Your task to perform on an android device: open app "McDonald's" (install if not already installed) and enter user name: "copes@yahoo.com" and password: "Rhenish" Image 0: 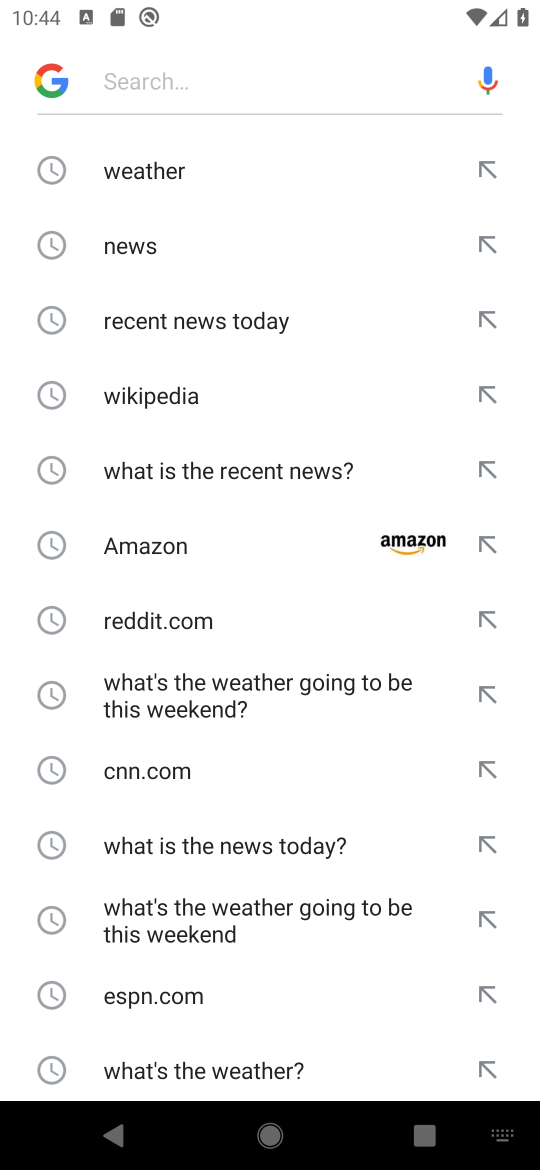
Step 0: press home button
Your task to perform on an android device: open app "McDonald's" (install if not already installed) and enter user name: "copes@yahoo.com" and password: "Rhenish" Image 1: 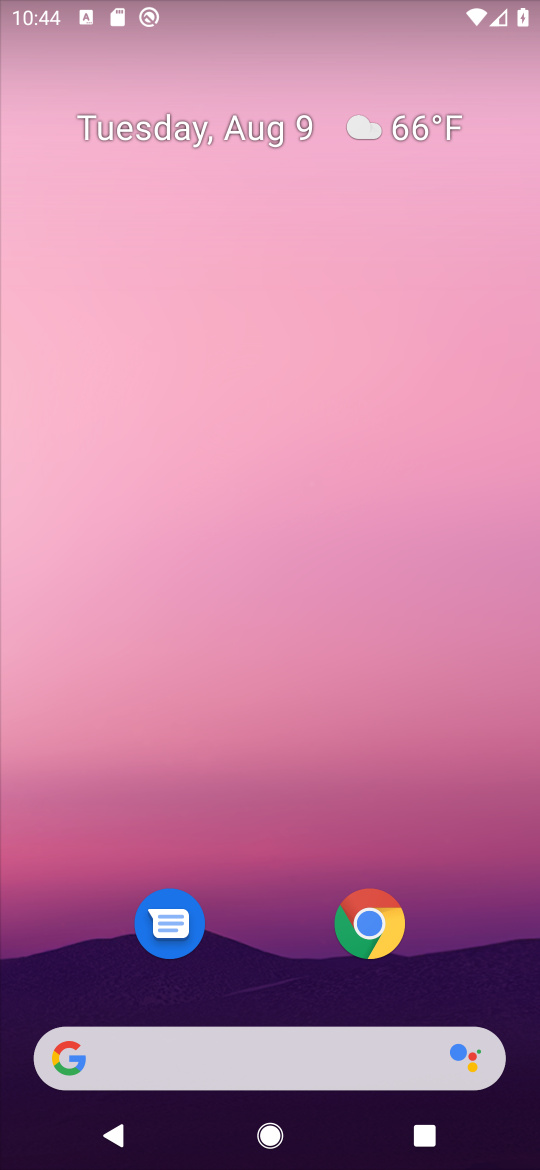
Step 1: drag from (284, 997) to (307, 52)
Your task to perform on an android device: open app "McDonald's" (install if not already installed) and enter user name: "copes@yahoo.com" and password: "Rhenish" Image 2: 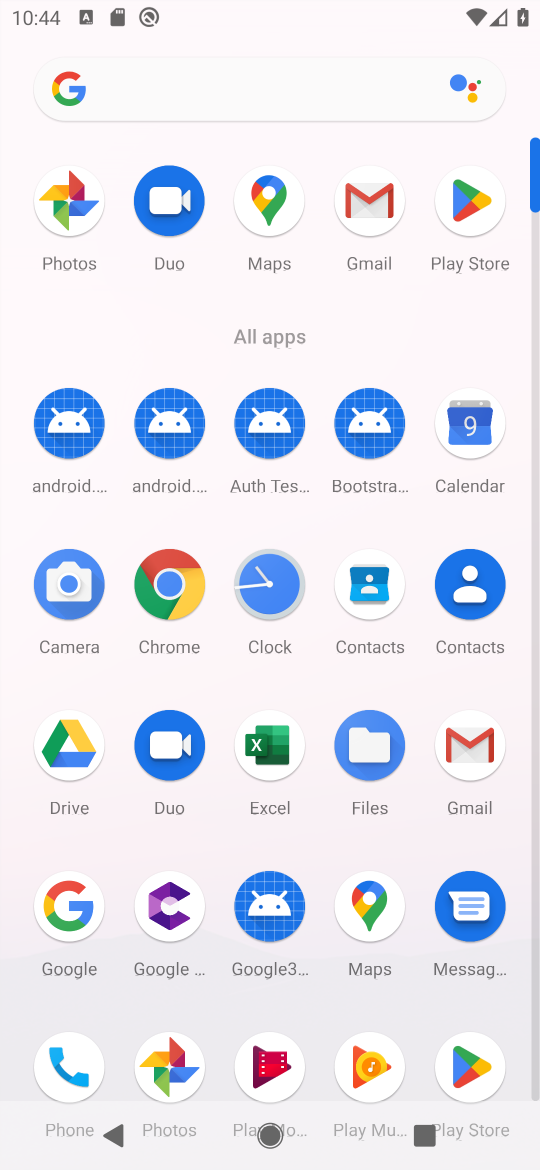
Step 2: click (463, 1067)
Your task to perform on an android device: open app "McDonald's" (install if not already installed) and enter user name: "copes@yahoo.com" and password: "Rhenish" Image 3: 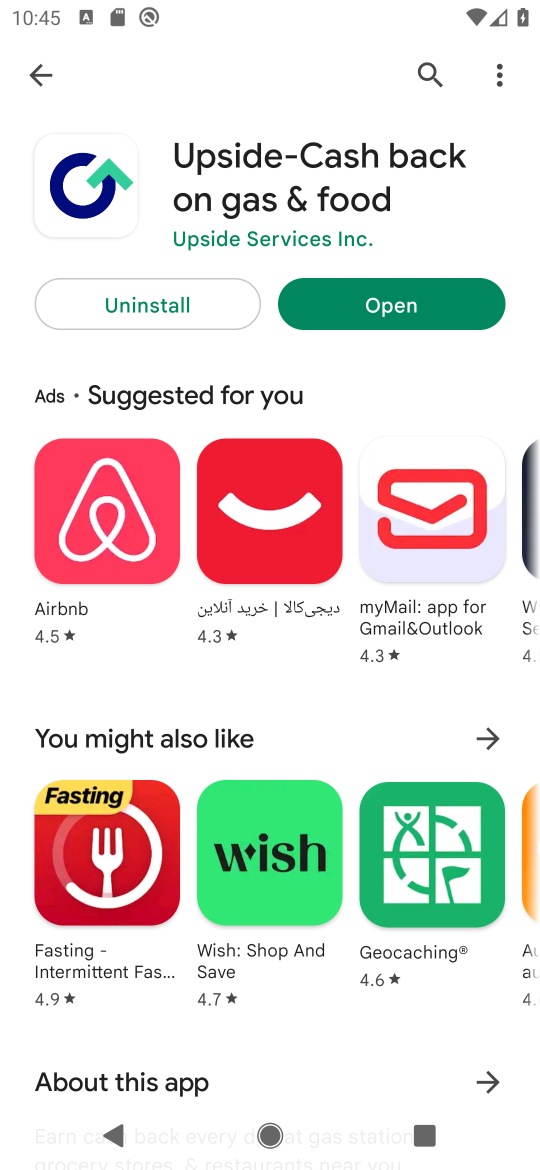
Step 3: click (394, 303)
Your task to perform on an android device: open app "McDonald's" (install if not already installed) and enter user name: "copes@yahoo.com" and password: "Rhenish" Image 4: 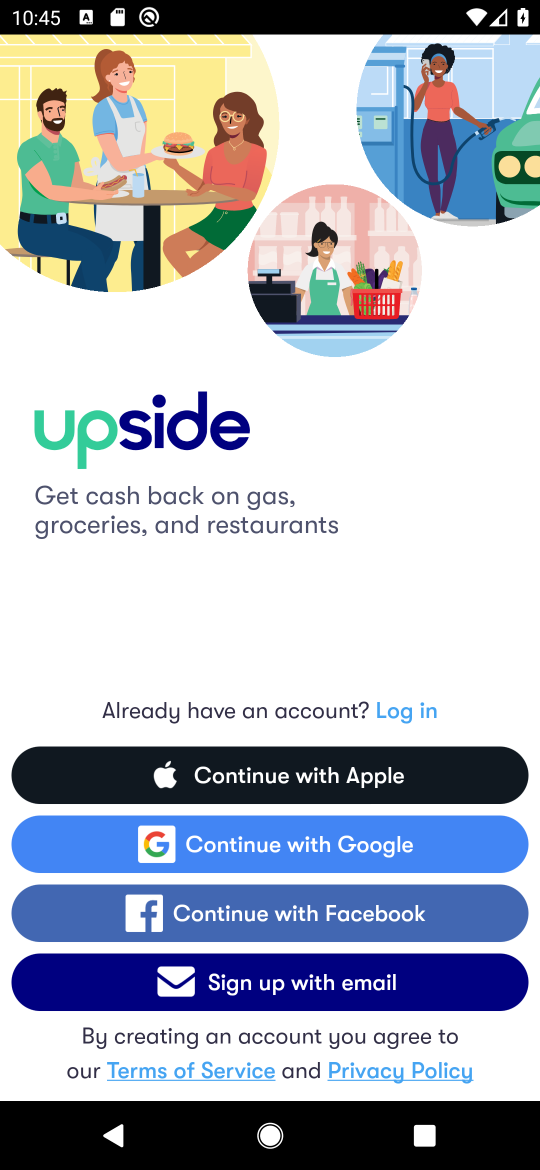
Step 4: press back button
Your task to perform on an android device: open app "McDonald's" (install if not already installed) and enter user name: "copes@yahoo.com" and password: "Rhenish" Image 5: 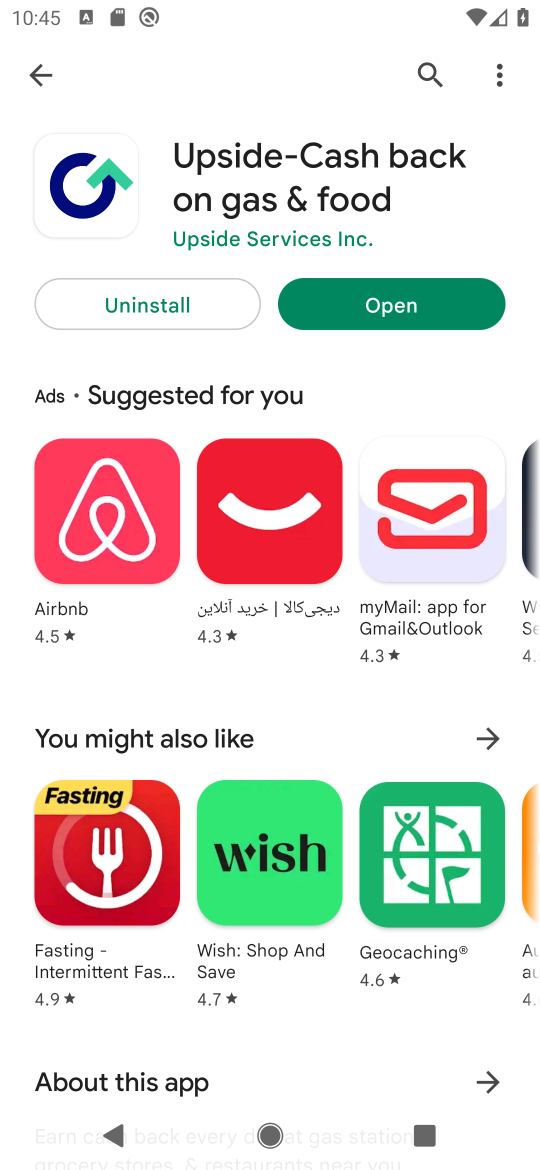
Step 5: click (417, 66)
Your task to perform on an android device: open app "McDonald's" (install if not already installed) and enter user name: "copes@yahoo.com" and password: "Rhenish" Image 6: 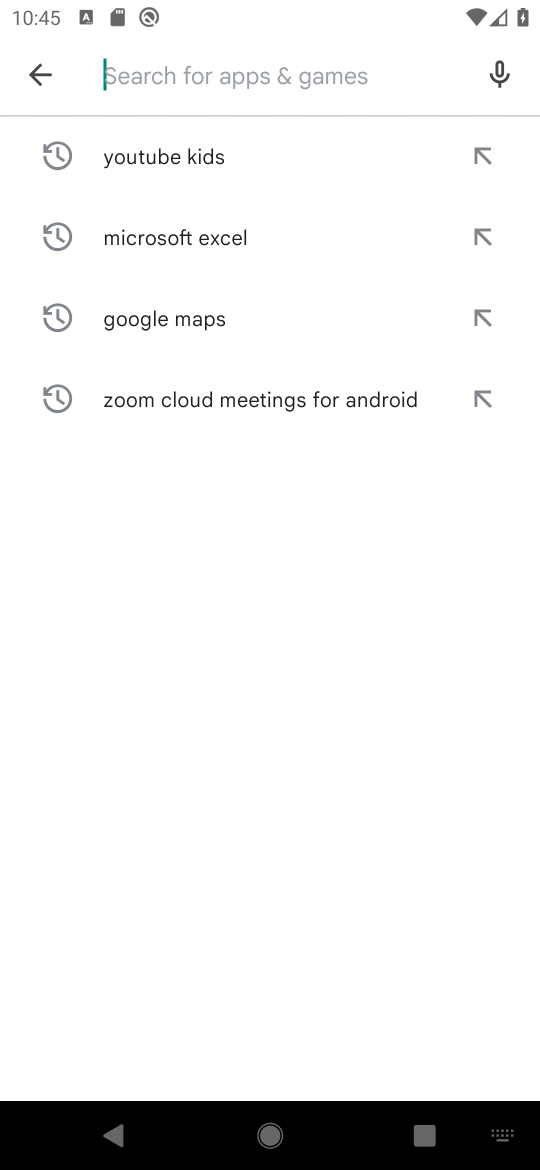
Step 6: click (153, 68)
Your task to perform on an android device: open app "McDonald's" (install if not already installed) and enter user name: "copes@yahoo.com" and password: "Rhenish" Image 7: 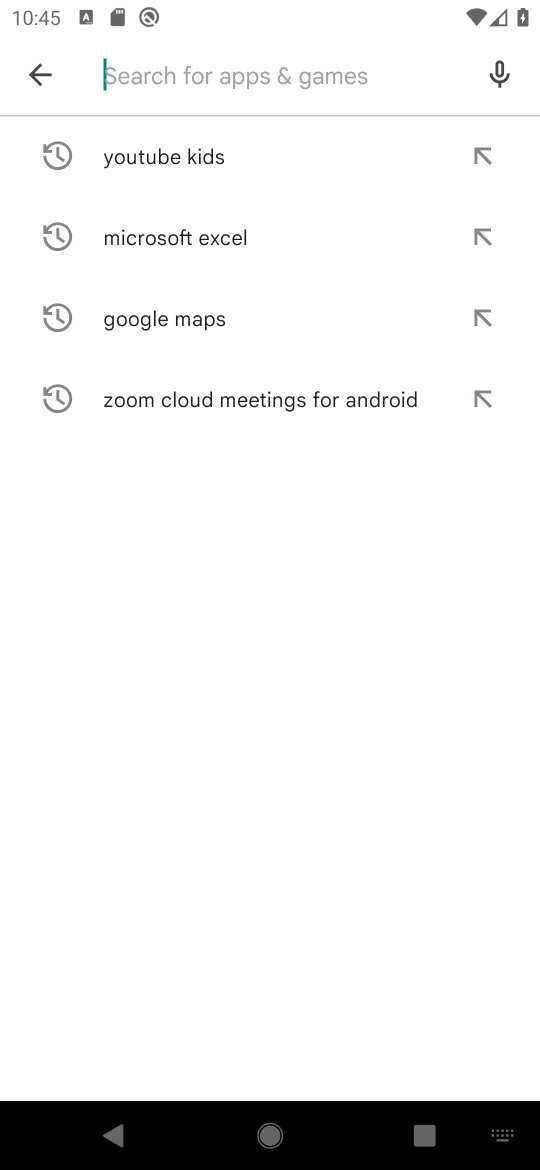
Step 7: type "McDonald's"
Your task to perform on an android device: open app "McDonald's" (install if not already installed) and enter user name: "copes@yahoo.com" and password: "Rhenish" Image 8: 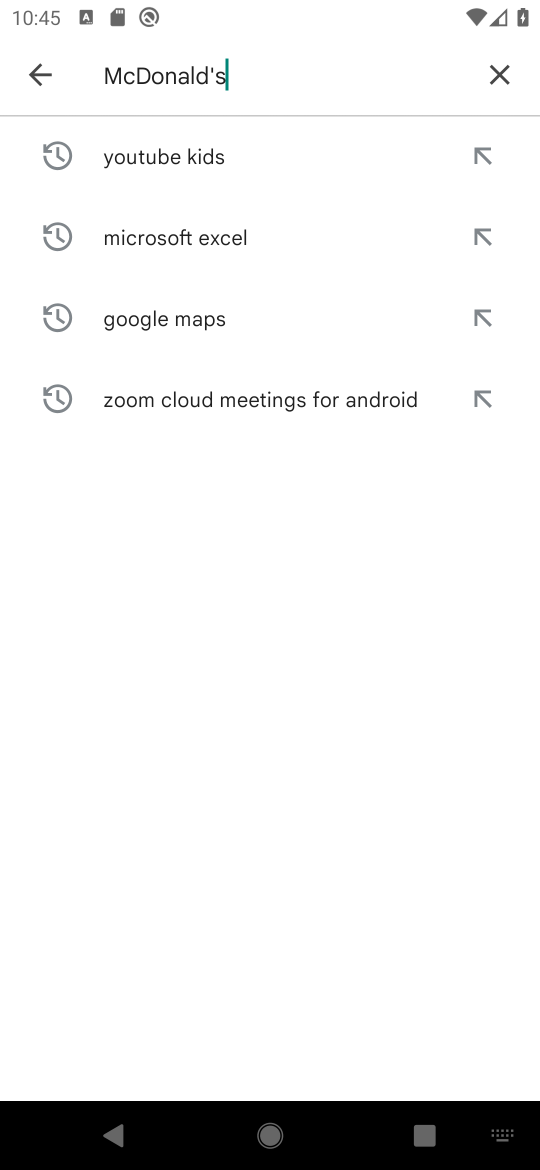
Step 8: type ""
Your task to perform on an android device: open app "McDonald's" (install if not already installed) and enter user name: "copes@yahoo.com" and password: "Rhenish" Image 9: 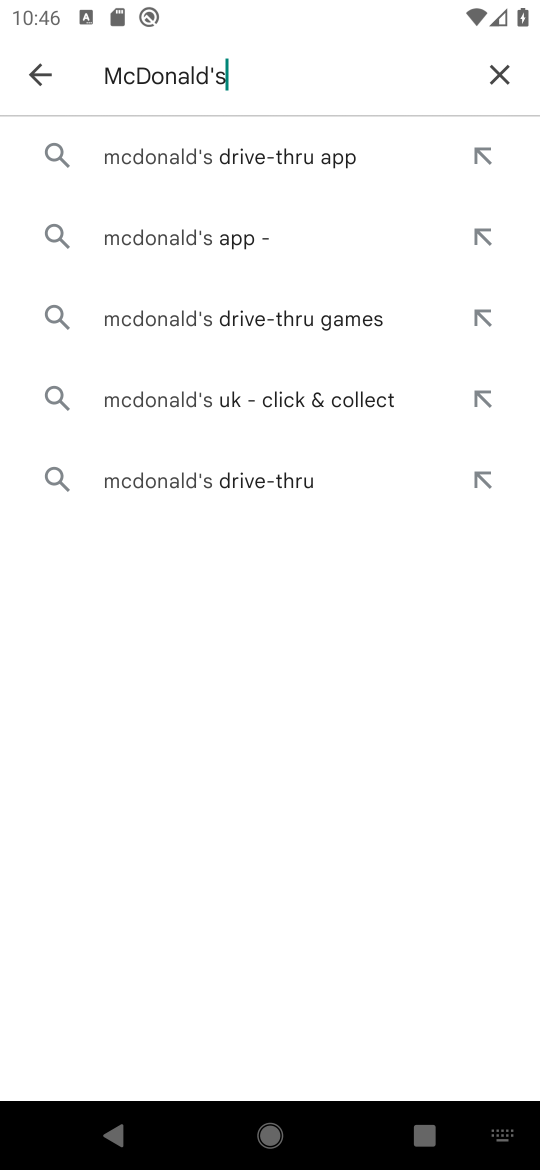
Step 9: click (217, 243)
Your task to perform on an android device: open app "McDonald's" (install if not already installed) and enter user name: "copes@yahoo.com" and password: "Rhenish" Image 10: 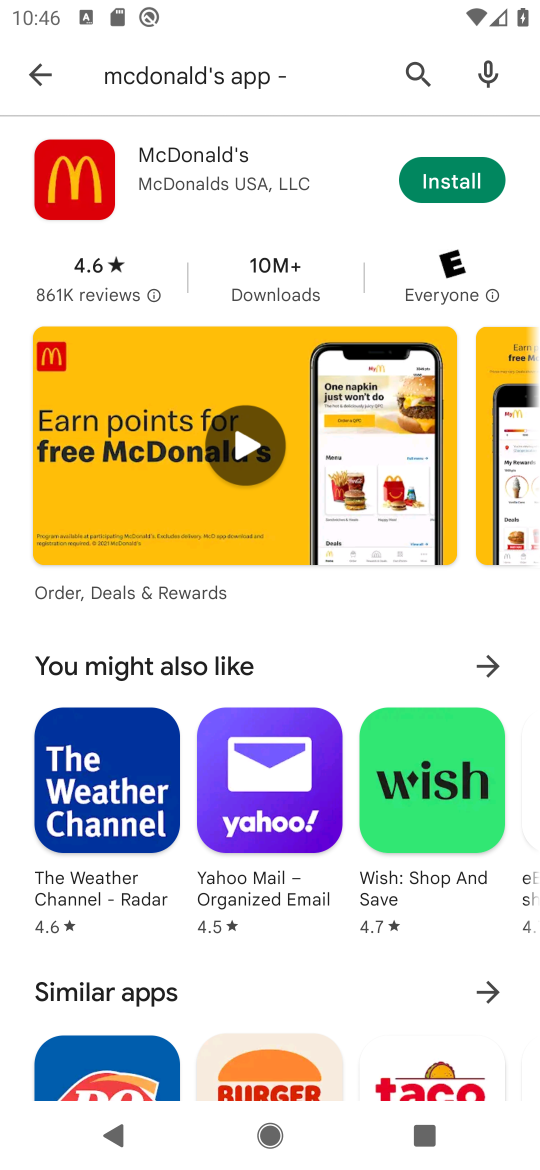
Step 10: click (454, 172)
Your task to perform on an android device: open app "McDonald's" (install if not already installed) and enter user name: "copes@yahoo.com" and password: "Rhenish" Image 11: 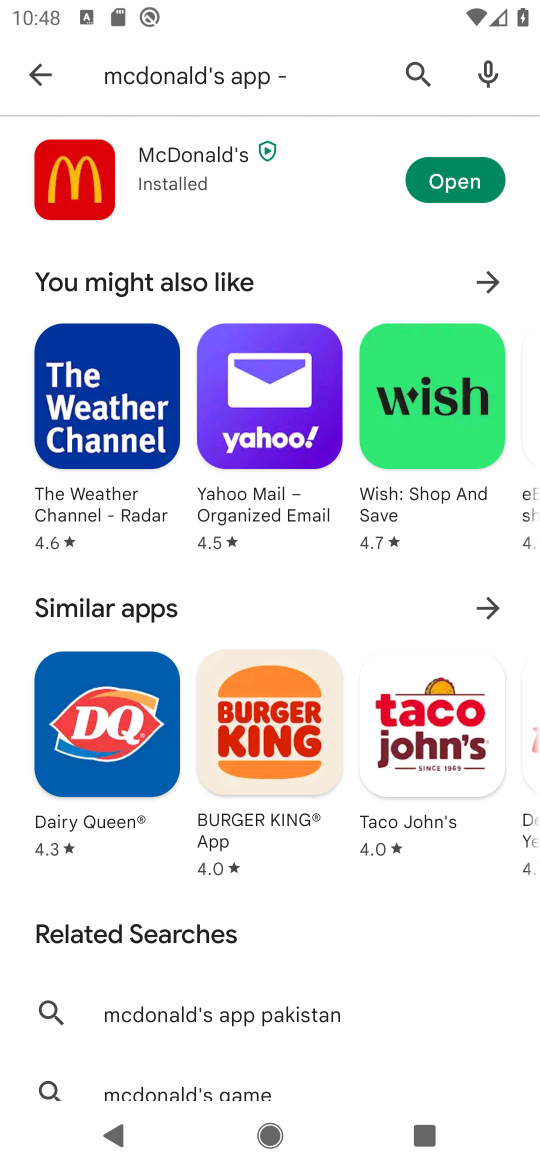
Step 11: click (454, 176)
Your task to perform on an android device: open app "McDonald's" (install if not already installed) and enter user name: "copes@yahoo.com" and password: "Rhenish" Image 12: 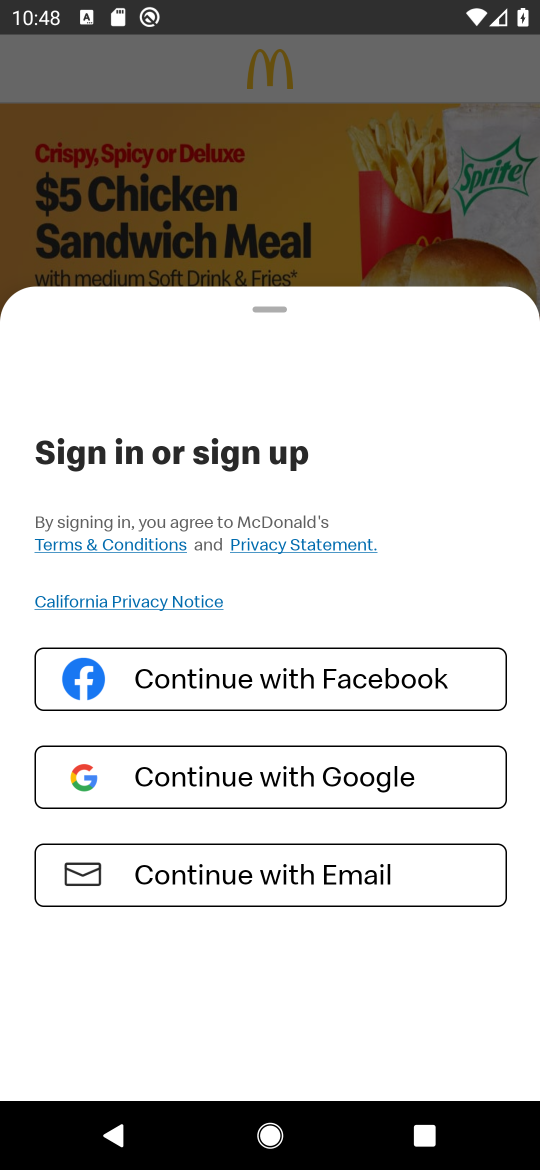
Step 12: click (116, 890)
Your task to perform on an android device: open app "McDonald's" (install if not already installed) and enter user name: "copes@yahoo.com" and password: "Rhenish" Image 13: 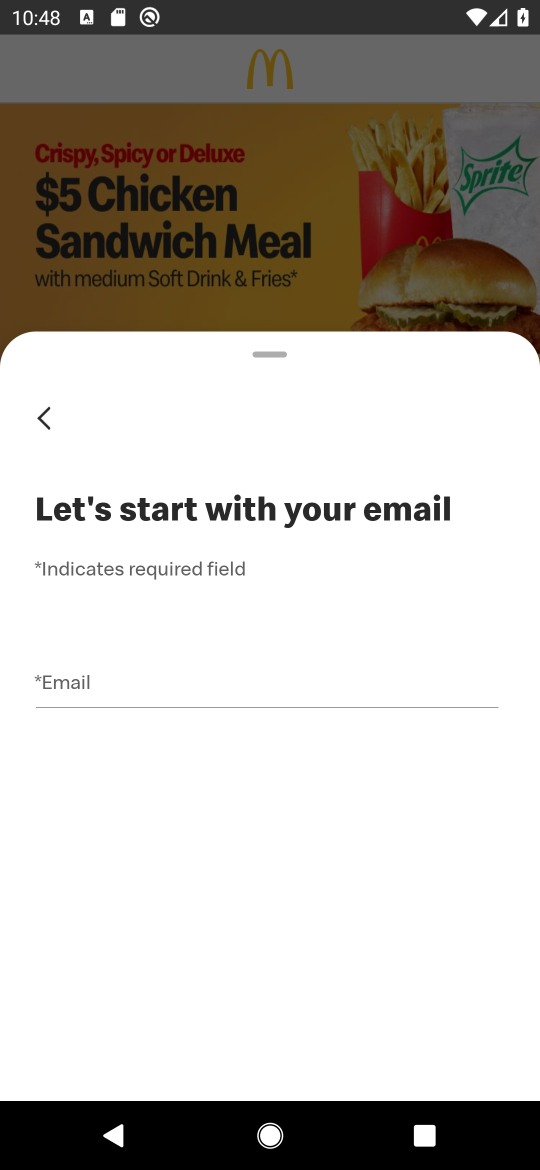
Step 13: click (129, 673)
Your task to perform on an android device: open app "McDonald's" (install if not already installed) and enter user name: "copes@yahoo.com" and password: "Rhenish" Image 14: 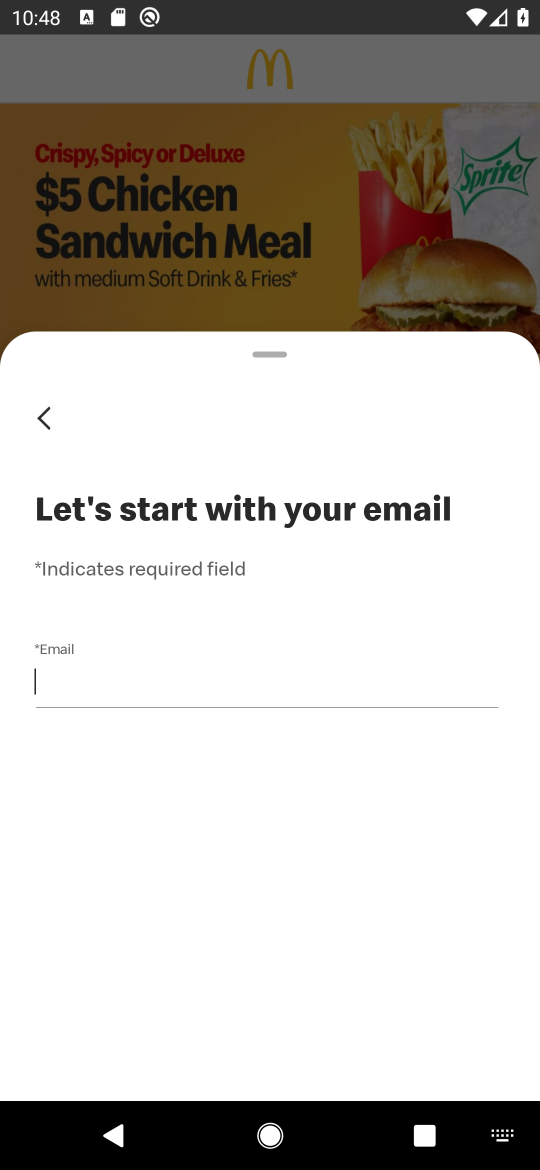
Step 14: type "copes@yahoo.com"
Your task to perform on an android device: open app "McDonald's" (install if not already installed) and enter user name: "copes@yahoo.com" and password: "Rhenish" Image 15: 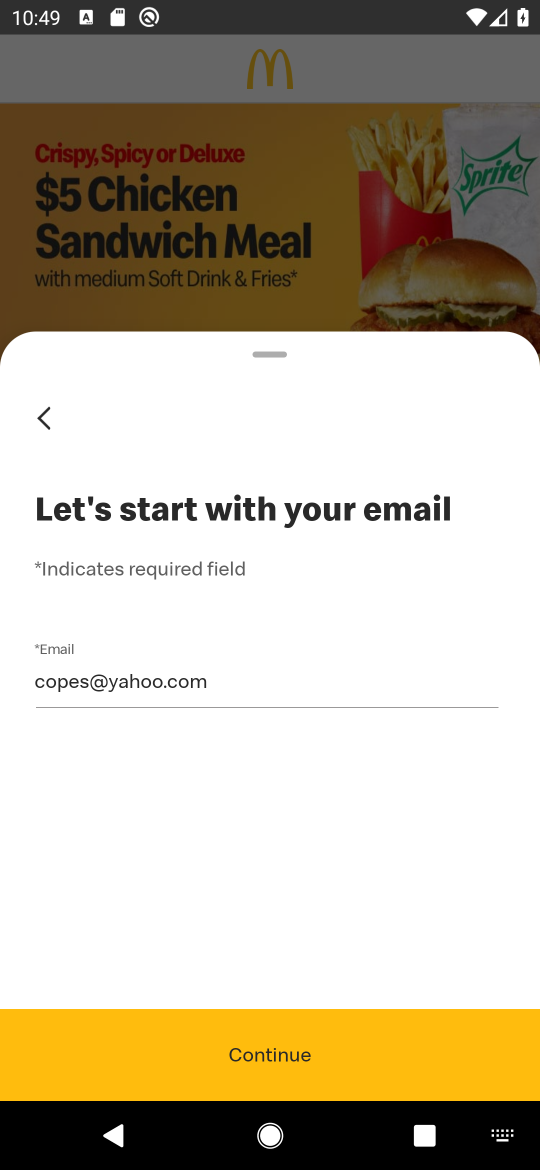
Step 15: click (281, 1063)
Your task to perform on an android device: open app "McDonald's" (install if not already installed) and enter user name: "copes@yahoo.com" and password: "Rhenish" Image 16: 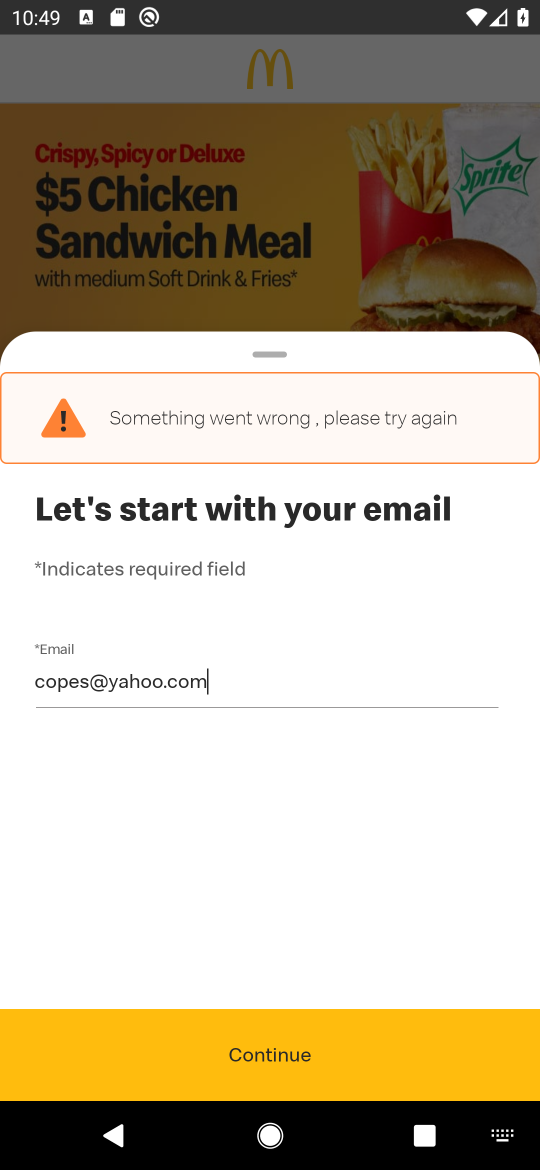
Step 16: click (250, 1056)
Your task to perform on an android device: open app "McDonald's" (install if not already installed) and enter user name: "copes@yahoo.com" and password: "Rhenish" Image 17: 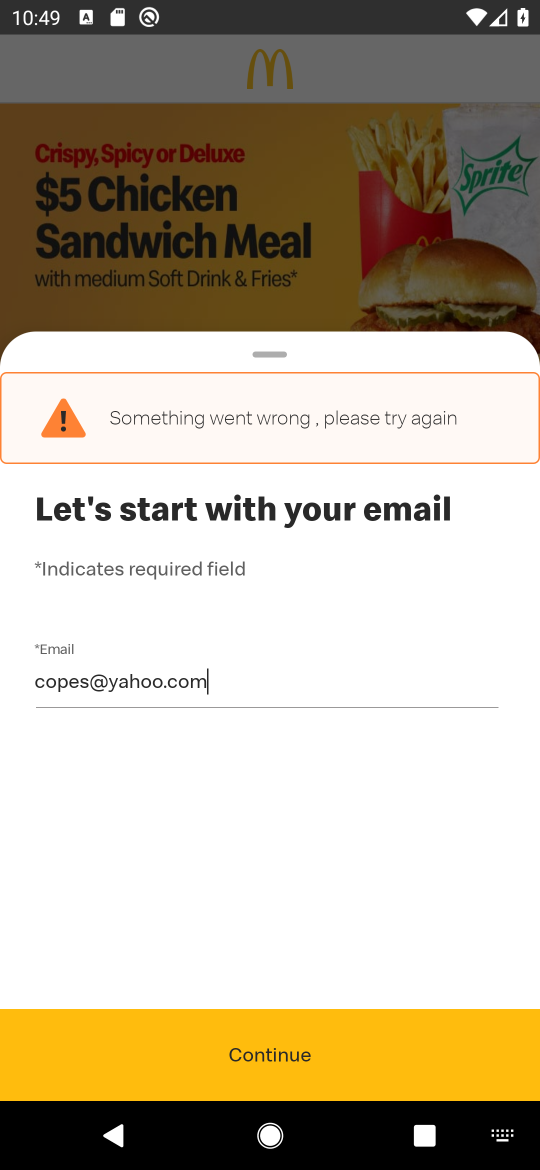
Step 17: task complete